Your task to perform on an android device: turn off picture-in-picture Image 0: 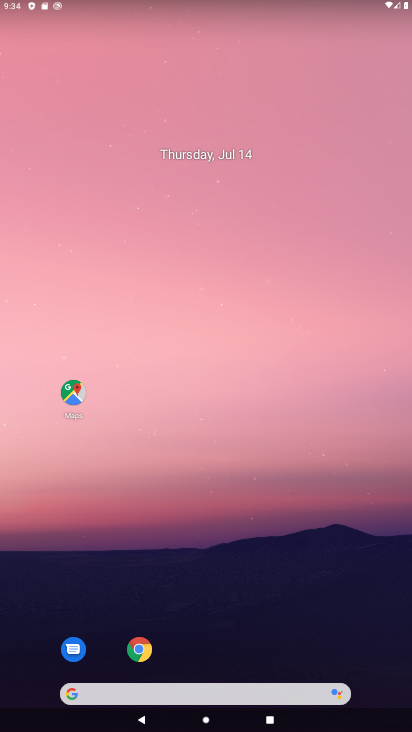
Step 0: drag from (177, 589) to (250, 76)
Your task to perform on an android device: turn off picture-in-picture Image 1: 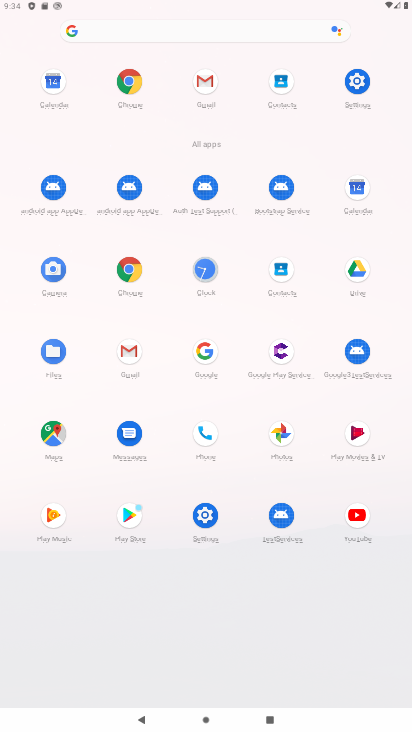
Step 1: click (352, 85)
Your task to perform on an android device: turn off picture-in-picture Image 2: 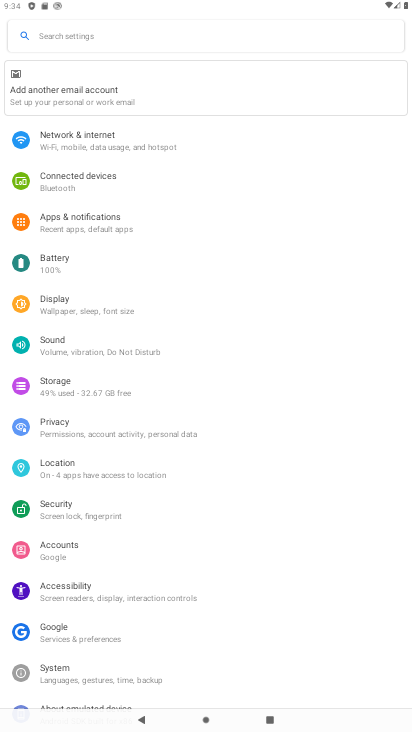
Step 2: click (90, 222)
Your task to perform on an android device: turn off picture-in-picture Image 3: 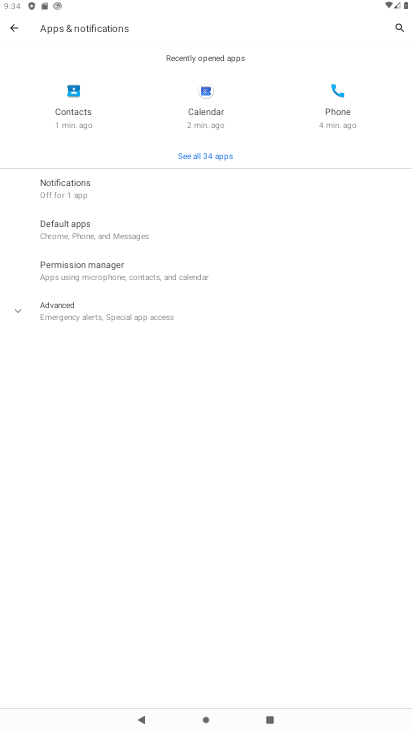
Step 3: click (106, 299)
Your task to perform on an android device: turn off picture-in-picture Image 4: 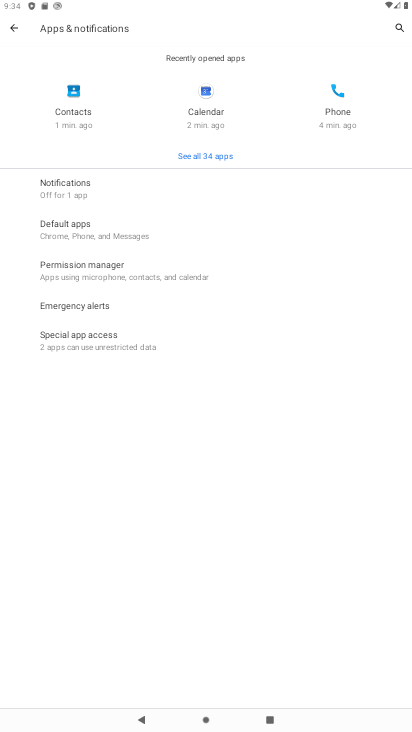
Step 4: click (96, 353)
Your task to perform on an android device: turn off picture-in-picture Image 5: 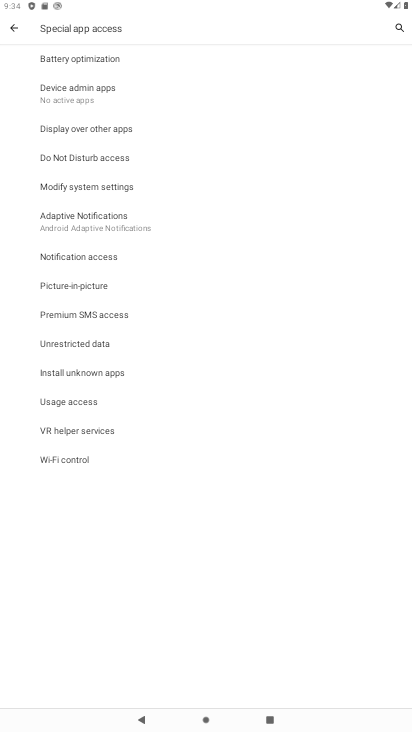
Step 5: click (91, 285)
Your task to perform on an android device: turn off picture-in-picture Image 6: 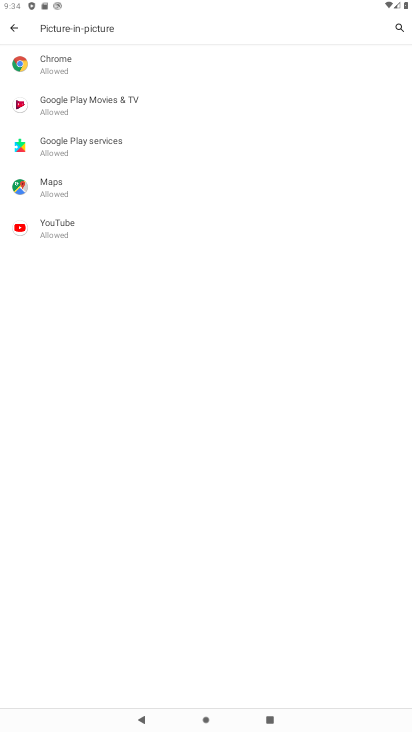
Step 6: click (59, 59)
Your task to perform on an android device: turn off picture-in-picture Image 7: 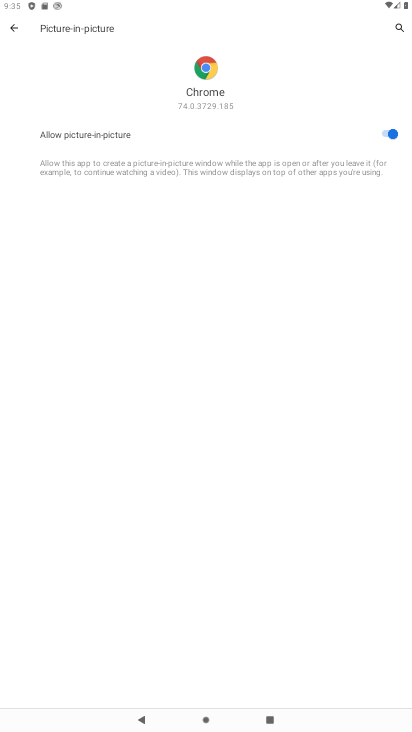
Step 7: click (385, 132)
Your task to perform on an android device: turn off picture-in-picture Image 8: 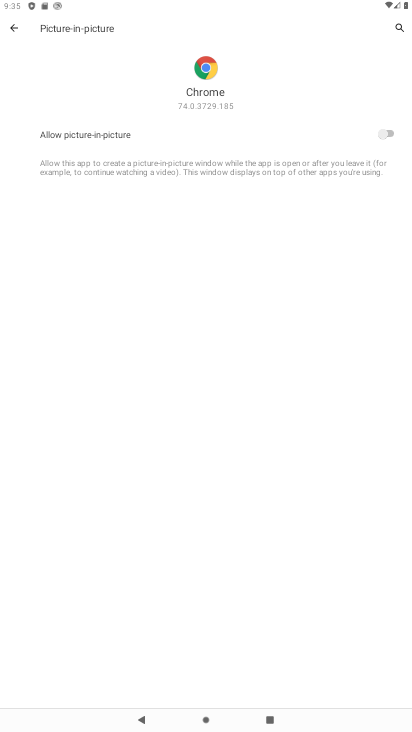
Step 8: task complete